Your task to perform on an android device: read, delete, or share a saved page in the chrome app Image 0: 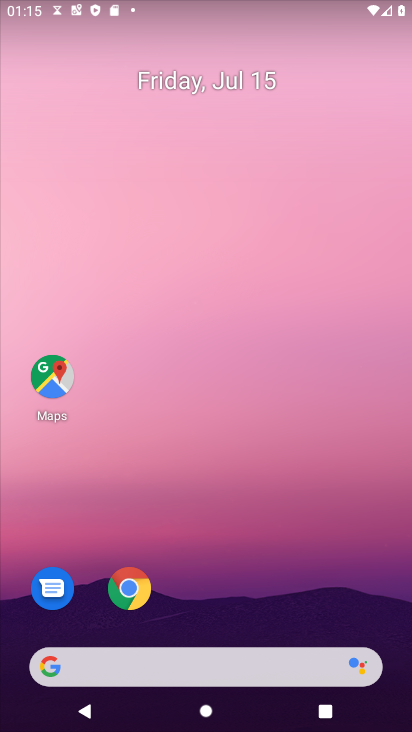
Step 0: click (130, 601)
Your task to perform on an android device: read, delete, or share a saved page in the chrome app Image 1: 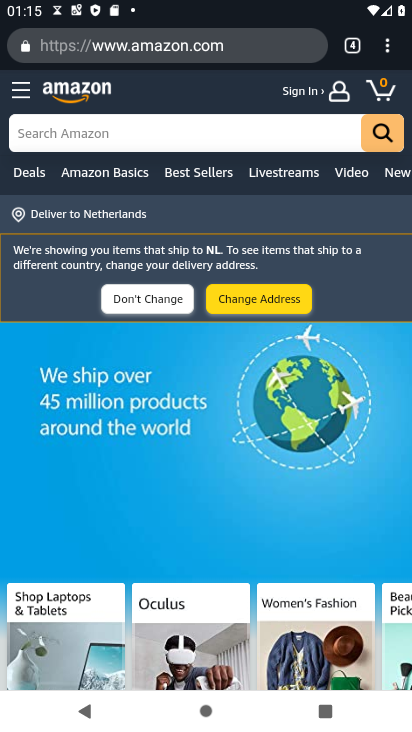
Step 1: drag from (385, 49) to (277, 305)
Your task to perform on an android device: read, delete, or share a saved page in the chrome app Image 2: 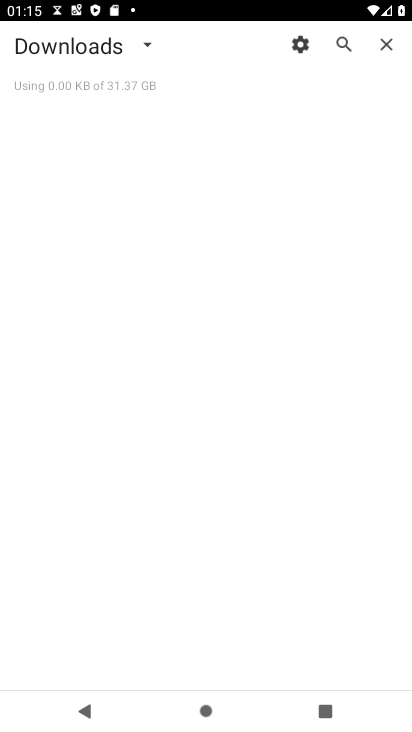
Step 2: click (134, 45)
Your task to perform on an android device: read, delete, or share a saved page in the chrome app Image 3: 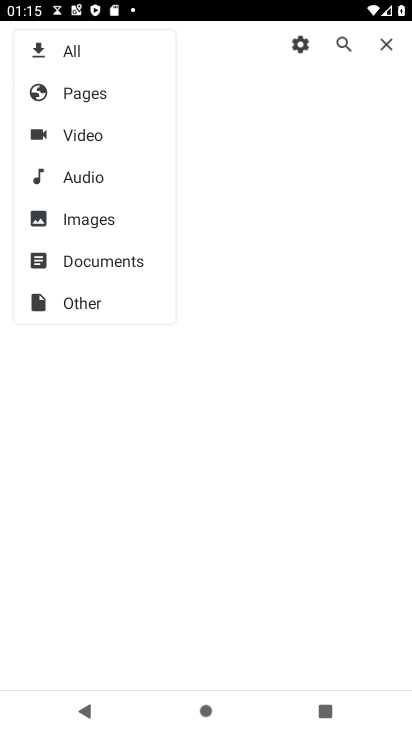
Step 3: click (112, 92)
Your task to perform on an android device: read, delete, or share a saved page in the chrome app Image 4: 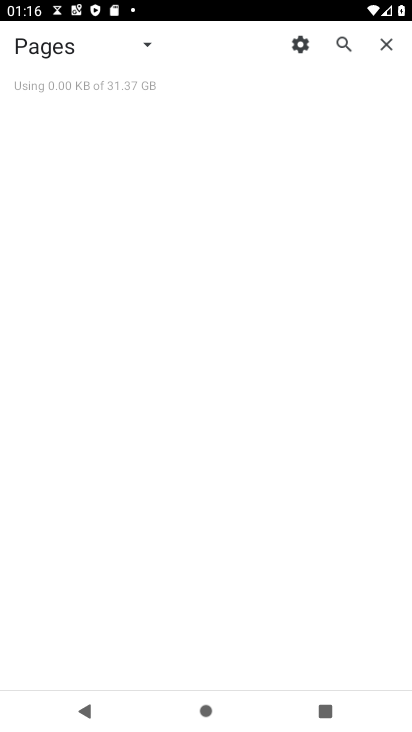
Step 4: click (122, 40)
Your task to perform on an android device: read, delete, or share a saved page in the chrome app Image 5: 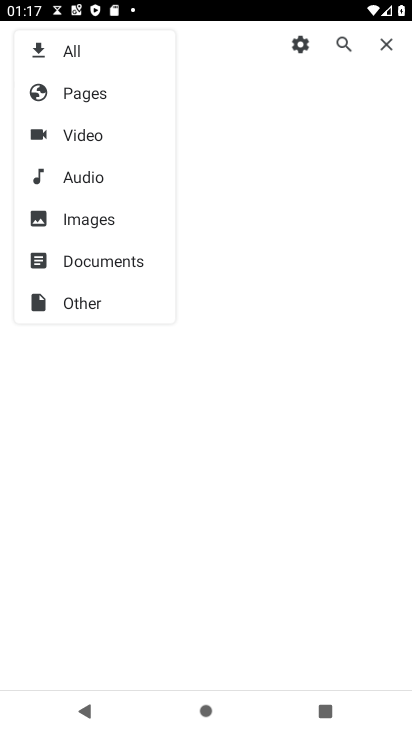
Step 5: click (108, 94)
Your task to perform on an android device: read, delete, or share a saved page in the chrome app Image 6: 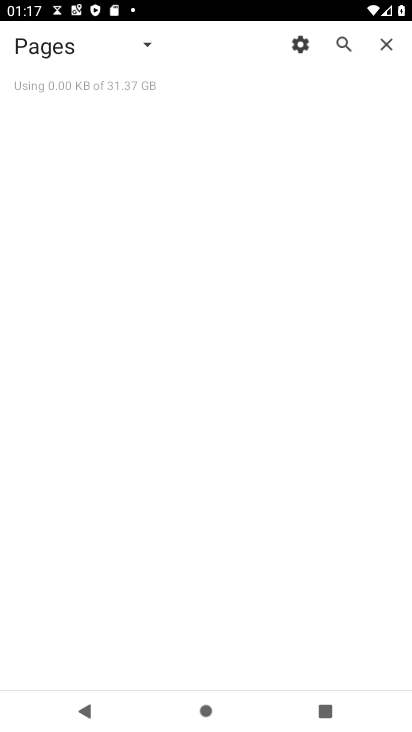
Step 6: task complete